Your task to perform on an android device: Open Yahoo.com Image 0: 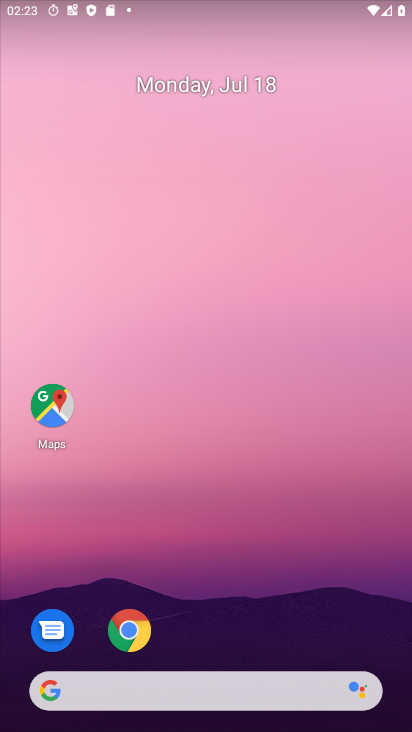
Step 0: click (131, 700)
Your task to perform on an android device: Open Yahoo.com Image 1: 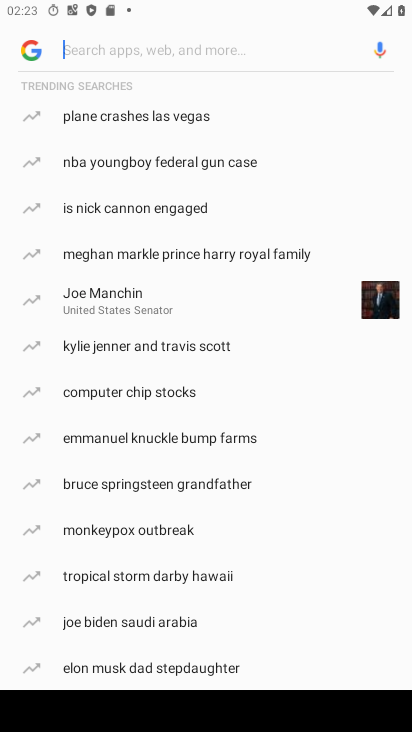
Step 1: click (31, 40)
Your task to perform on an android device: Open Yahoo.com Image 2: 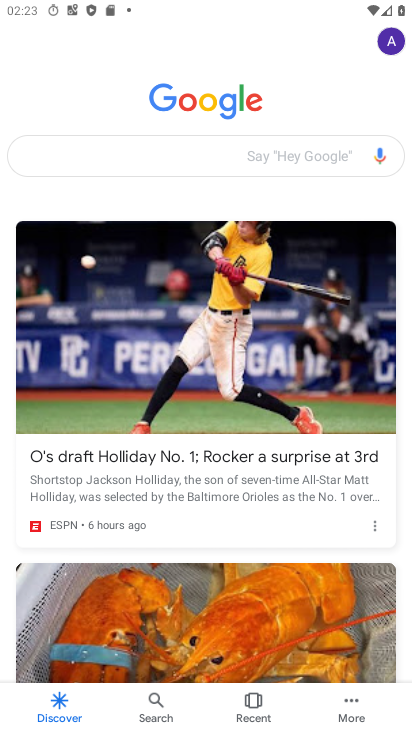
Step 2: click (200, 141)
Your task to perform on an android device: Open Yahoo.com Image 3: 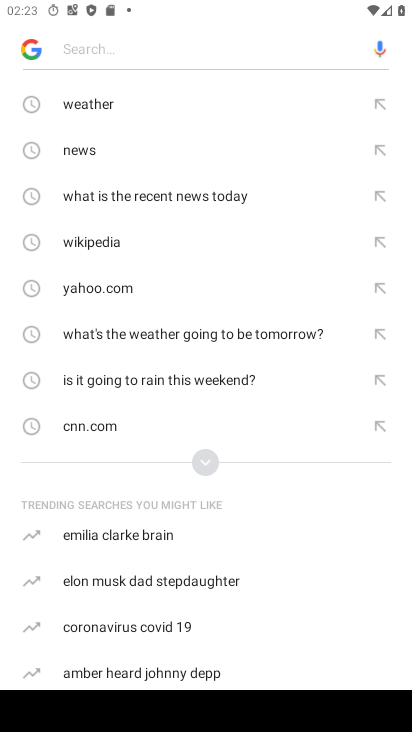
Step 3: type "yahoo"
Your task to perform on an android device: Open Yahoo.com Image 4: 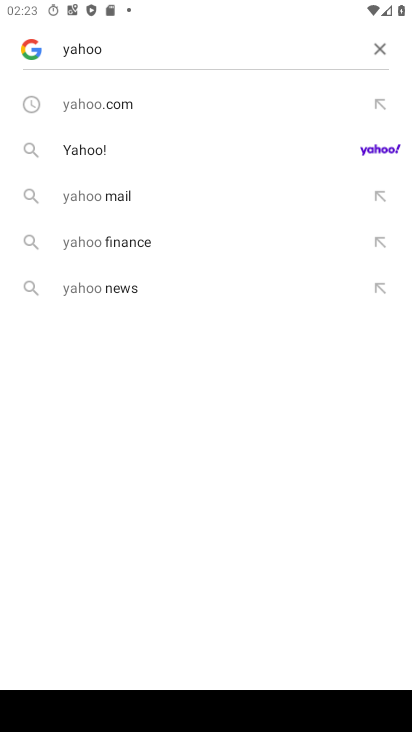
Step 4: click (90, 161)
Your task to perform on an android device: Open Yahoo.com Image 5: 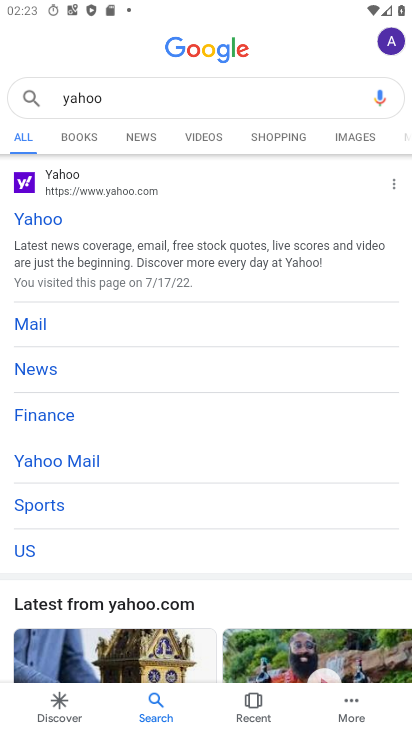
Step 5: task complete